Your task to perform on an android device: move a message to another label in the gmail app Image 0: 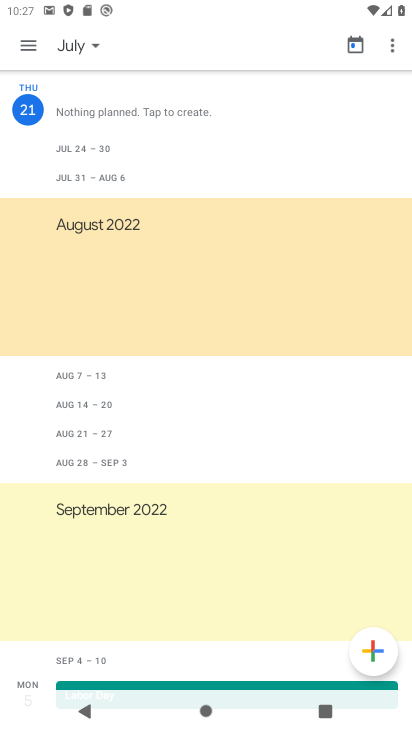
Step 0: drag from (113, 621) to (187, 192)
Your task to perform on an android device: move a message to another label in the gmail app Image 1: 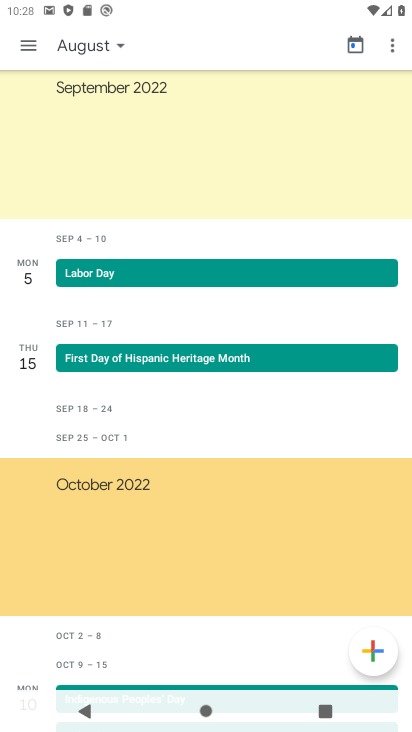
Step 1: click (206, 192)
Your task to perform on an android device: move a message to another label in the gmail app Image 2: 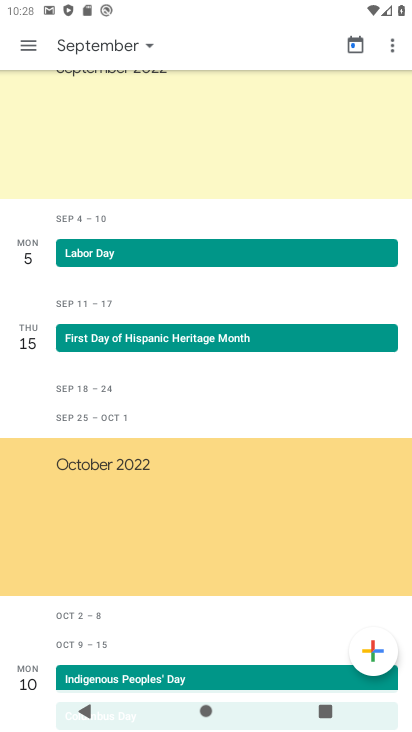
Step 2: press home button
Your task to perform on an android device: move a message to another label in the gmail app Image 3: 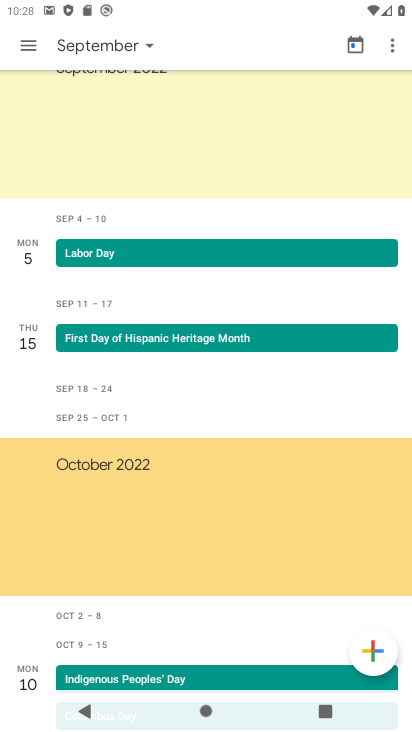
Step 3: press home button
Your task to perform on an android device: move a message to another label in the gmail app Image 4: 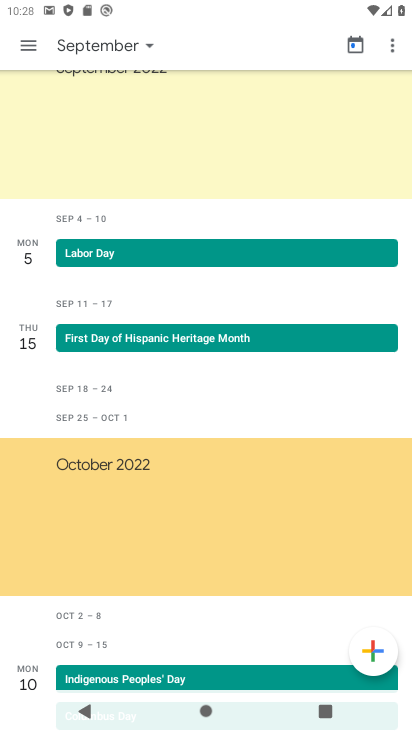
Step 4: click (237, 21)
Your task to perform on an android device: move a message to another label in the gmail app Image 5: 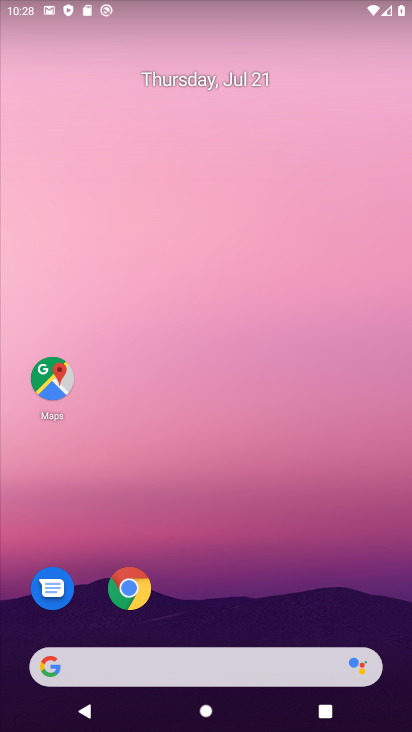
Step 5: drag from (210, 537) to (266, 8)
Your task to perform on an android device: move a message to another label in the gmail app Image 6: 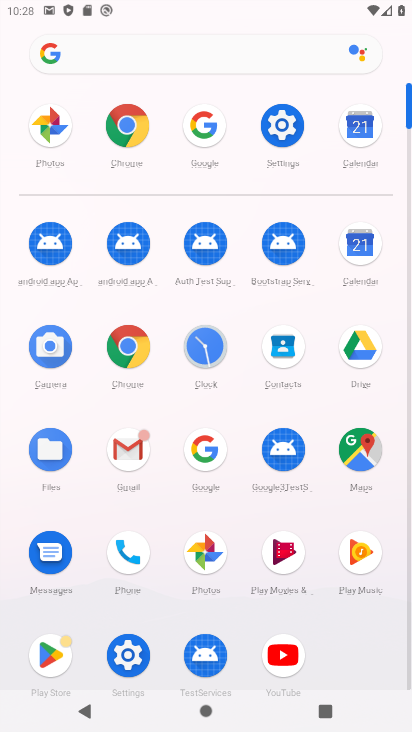
Step 6: click (122, 446)
Your task to perform on an android device: move a message to another label in the gmail app Image 7: 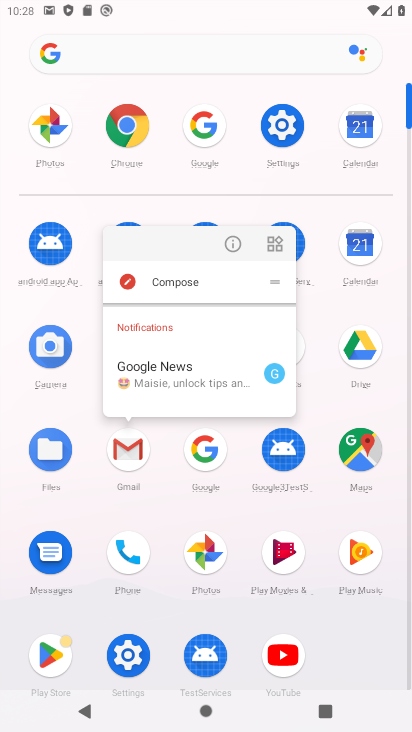
Step 7: click (231, 242)
Your task to perform on an android device: move a message to another label in the gmail app Image 8: 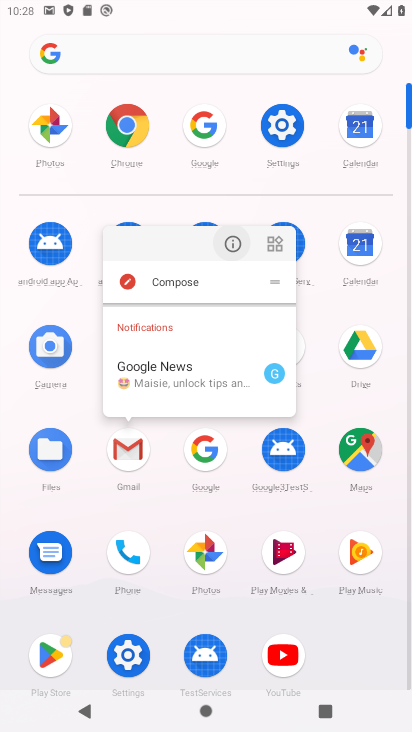
Step 8: click (231, 242)
Your task to perform on an android device: move a message to another label in the gmail app Image 9: 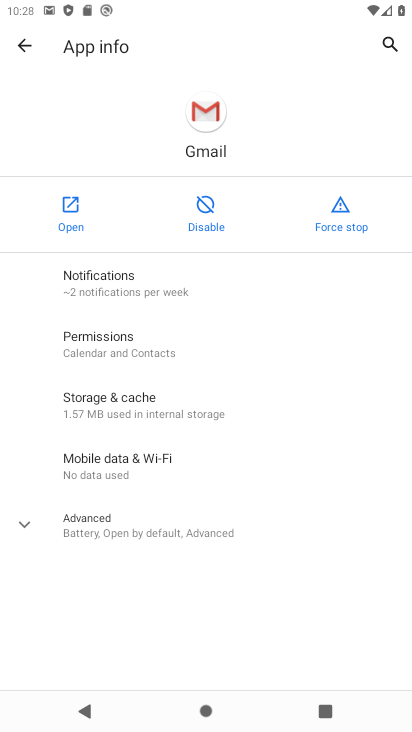
Step 9: click (75, 200)
Your task to perform on an android device: move a message to another label in the gmail app Image 10: 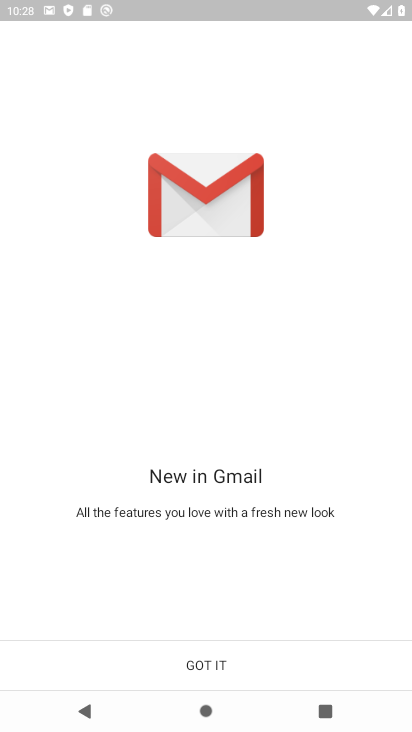
Step 10: click (201, 662)
Your task to perform on an android device: move a message to another label in the gmail app Image 11: 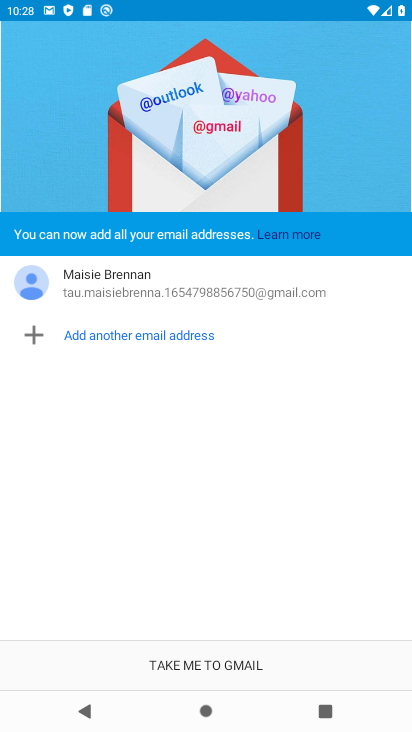
Step 11: click (180, 663)
Your task to perform on an android device: move a message to another label in the gmail app Image 12: 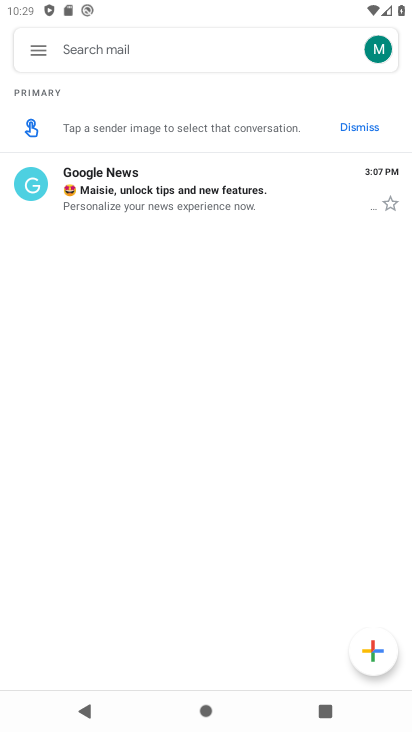
Step 12: click (241, 188)
Your task to perform on an android device: move a message to another label in the gmail app Image 13: 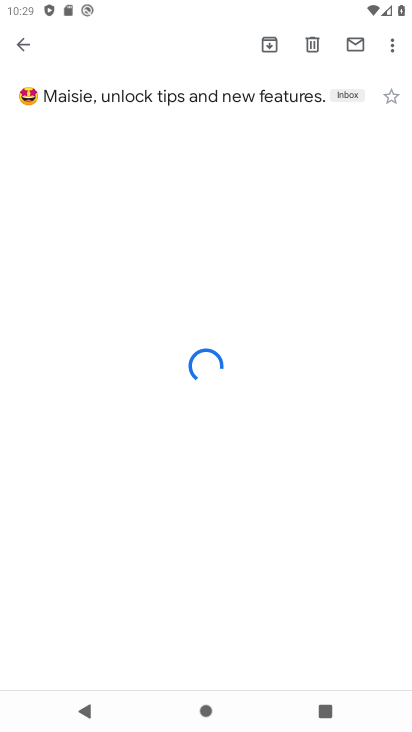
Step 13: click (387, 102)
Your task to perform on an android device: move a message to another label in the gmail app Image 14: 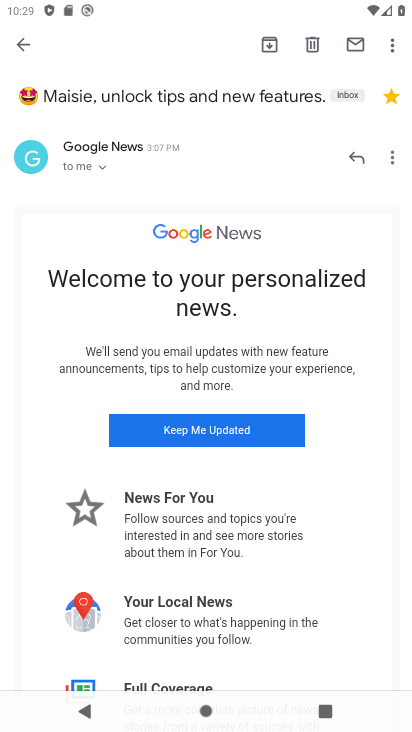
Step 14: task complete